Your task to perform on an android device: Open the stopwatch Image 0: 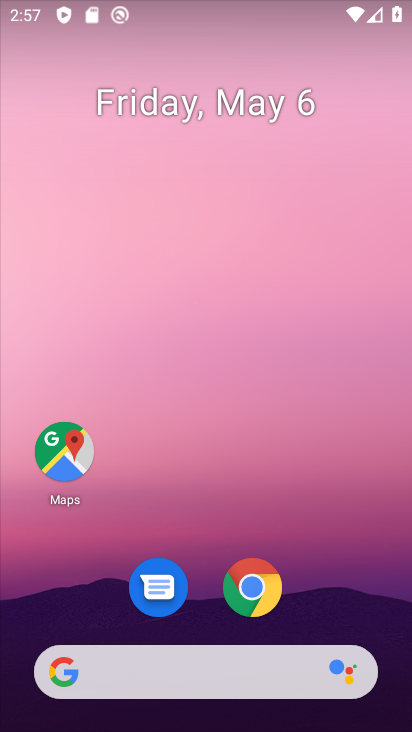
Step 0: drag from (346, 507) to (347, 77)
Your task to perform on an android device: Open the stopwatch Image 1: 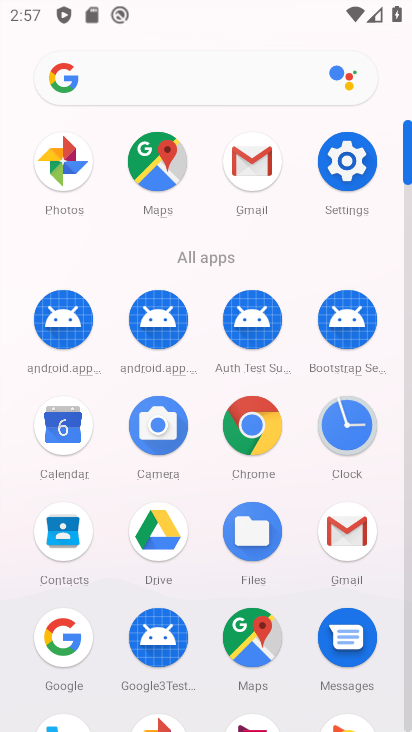
Step 1: click (348, 425)
Your task to perform on an android device: Open the stopwatch Image 2: 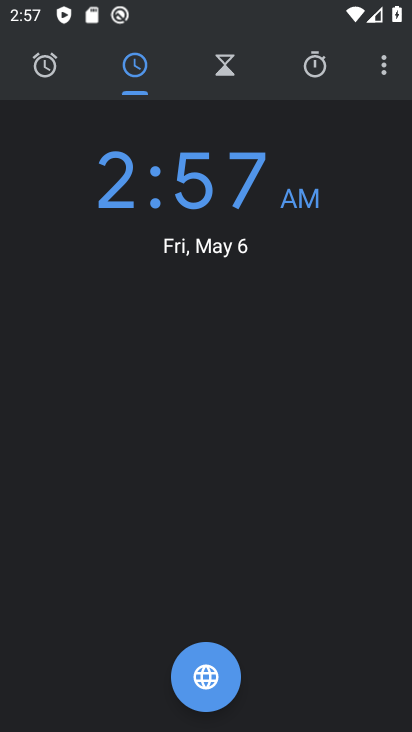
Step 2: click (319, 62)
Your task to perform on an android device: Open the stopwatch Image 3: 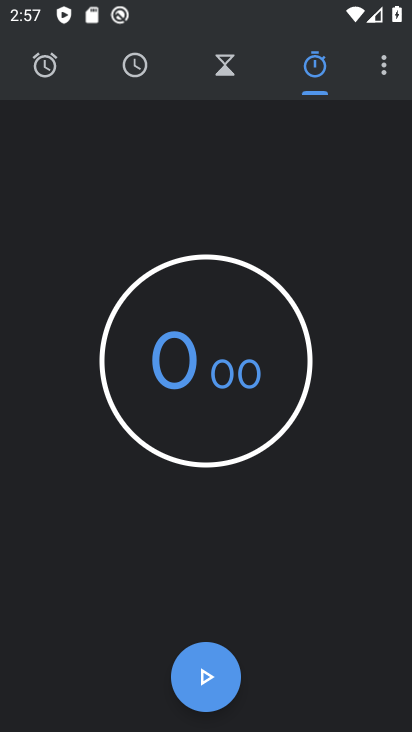
Step 3: click (248, 351)
Your task to perform on an android device: Open the stopwatch Image 4: 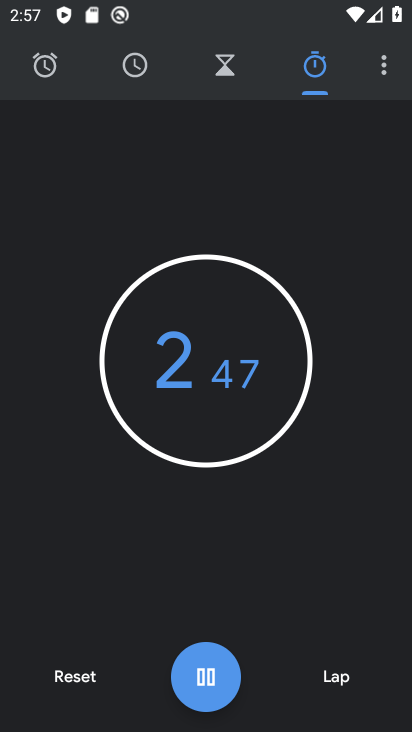
Step 4: click (204, 676)
Your task to perform on an android device: Open the stopwatch Image 5: 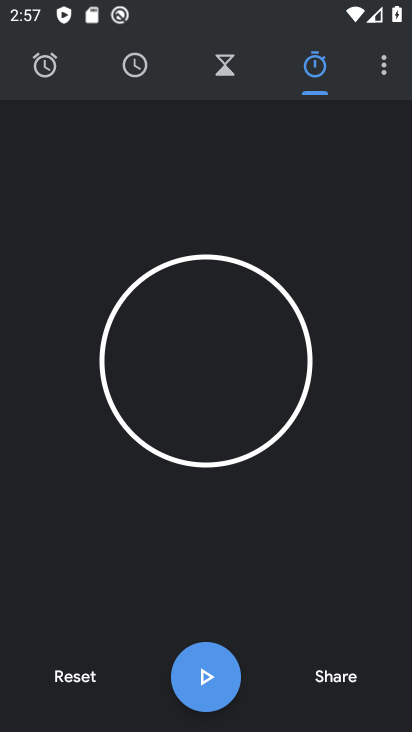
Step 5: task complete